Your task to perform on an android device: Open location settings Image 0: 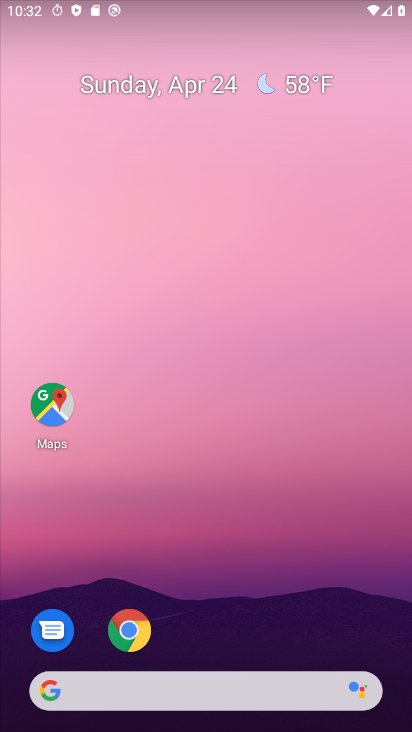
Step 0: drag from (247, 685) to (247, 219)
Your task to perform on an android device: Open location settings Image 1: 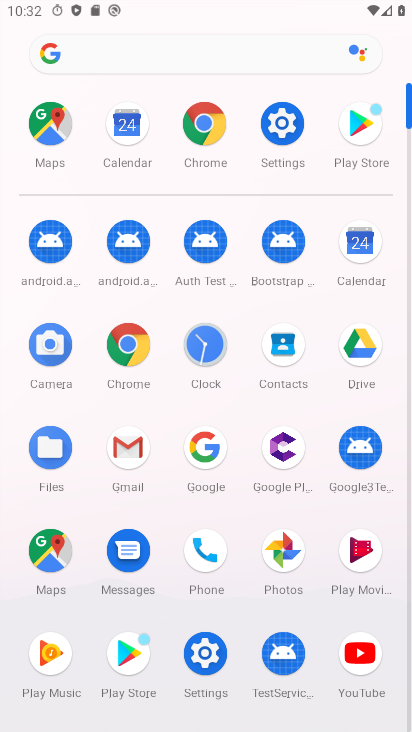
Step 1: click (284, 129)
Your task to perform on an android device: Open location settings Image 2: 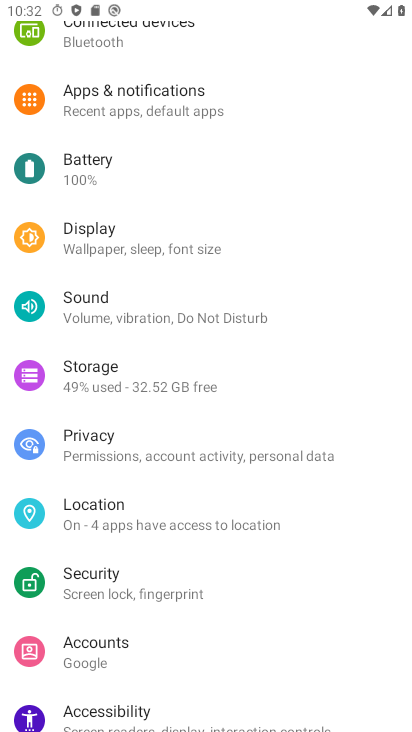
Step 2: click (243, 516)
Your task to perform on an android device: Open location settings Image 3: 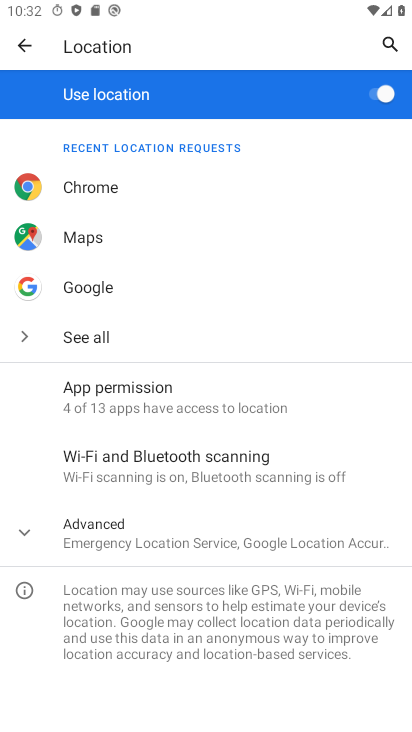
Step 3: task complete